Your task to perform on an android device: move an email to a new category in the gmail app Image 0: 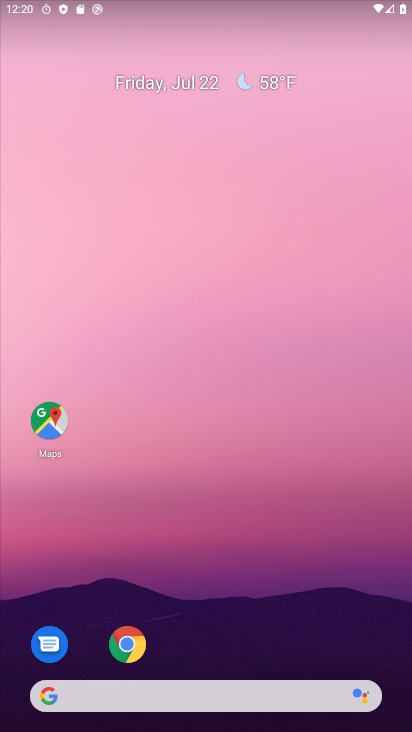
Step 0: drag from (194, 476) to (198, 128)
Your task to perform on an android device: move an email to a new category in the gmail app Image 1: 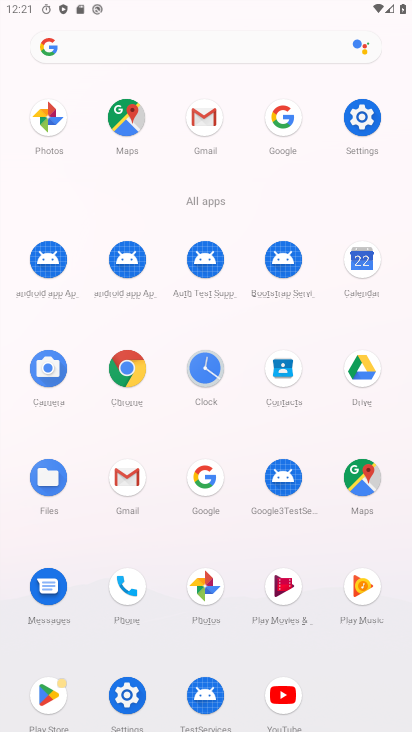
Step 1: click (136, 470)
Your task to perform on an android device: move an email to a new category in the gmail app Image 2: 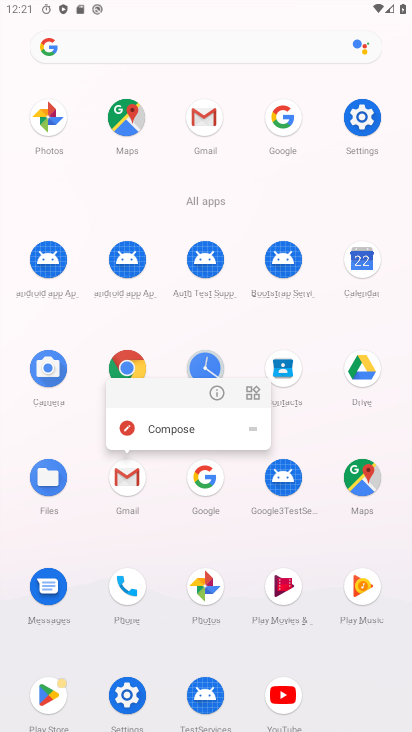
Step 2: click (218, 388)
Your task to perform on an android device: move an email to a new category in the gmail app Image 3: 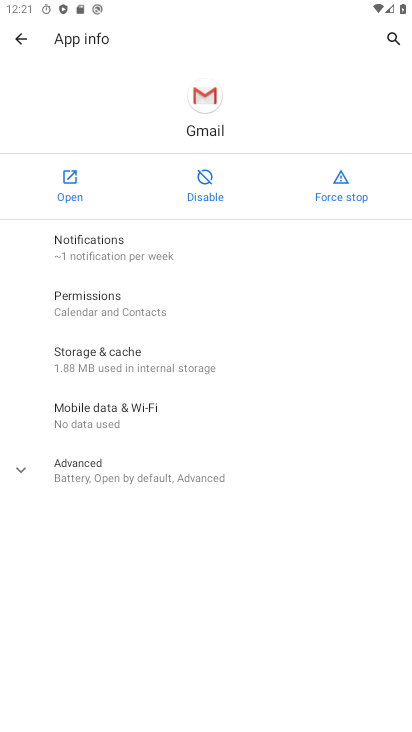
Step 3: click (66, 182)
Your task to perform on an android device: move an email to a new category in the gmail app Image 4: 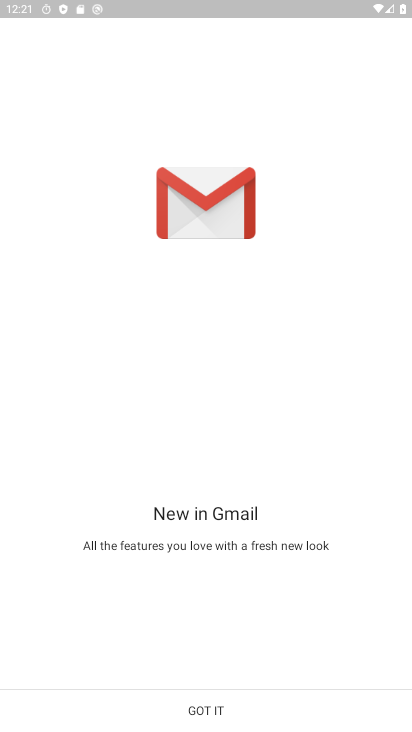
Step 4: click (205, 701)
Your task to perform on an android device: move an email to a new category in the gmail app Image 5: 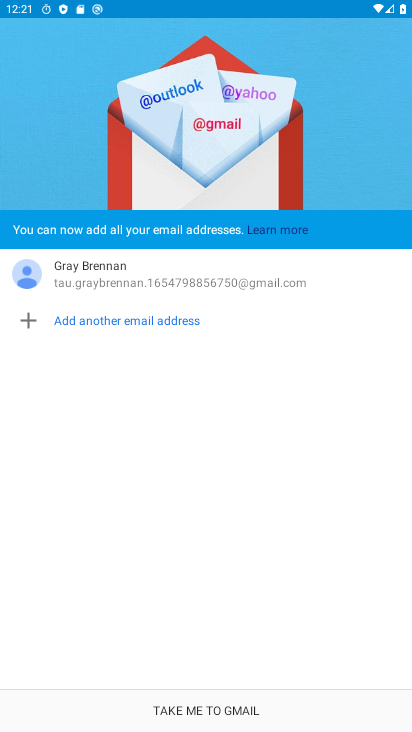
Step 5: click (187, 705)
Your task to perform on an android device: move an email to a new category in the gmail app Image 6: 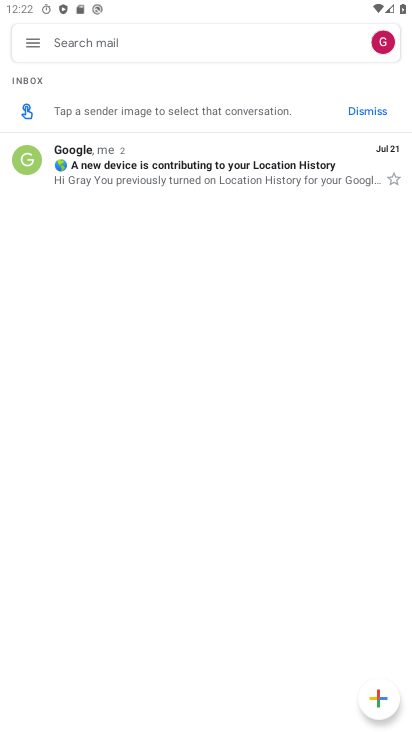
Step 6: click (251, 154)
Your task to perform on an android device: move an email to a new category in the gmail app Image 7: 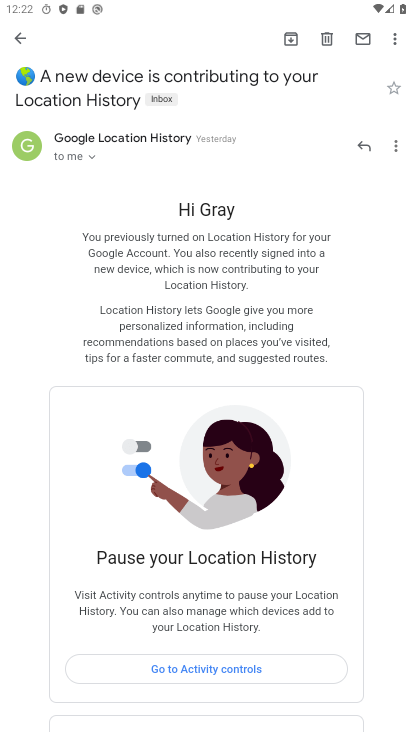
Step 7: drag from (191, 628) to (272, 235)
Your task to perform on an android device: move an email to a new category in the gmail app Image 8: 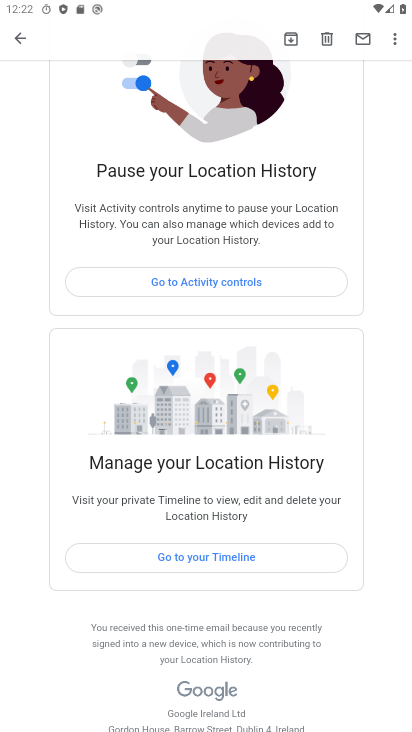
Step 8: drag from (238, 635) to (339, 723)
Your task to perform on an android device: move an email to a new category in the gmail app Image 9: 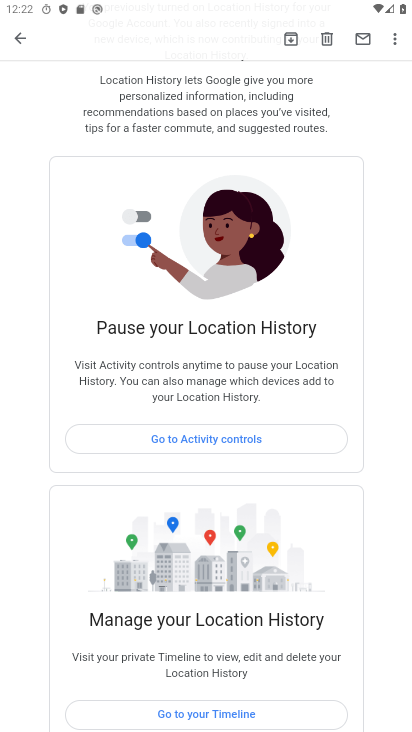
Step 9: click (388, 34)
Your task to perform on an android device: move an email to a new category in the gmail app Image 10: 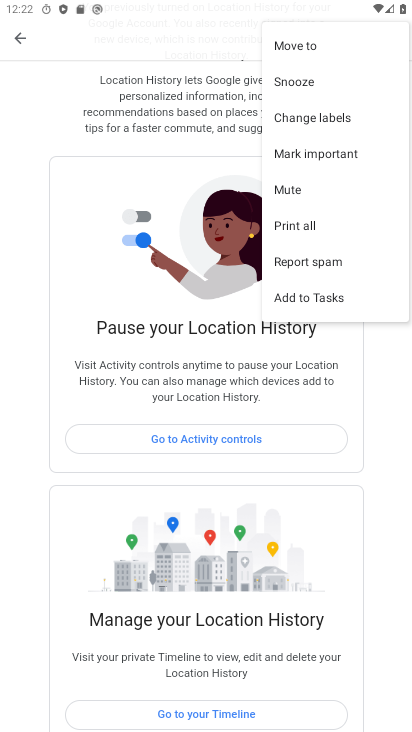
Step 10: click (192, 90)
Your task to perform on an android device: move an email to a new category in the gmail app Image 11: 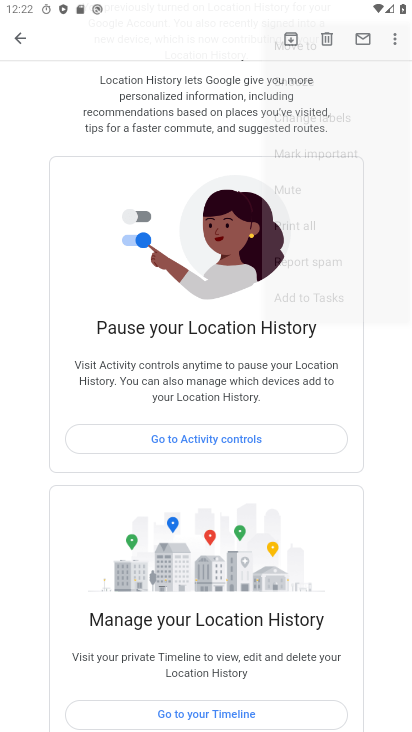
Step 11: drag from (180, 85) to (302, 731)
Your task to perform on an android device: move an email to a new category in the gmail app Image 12: 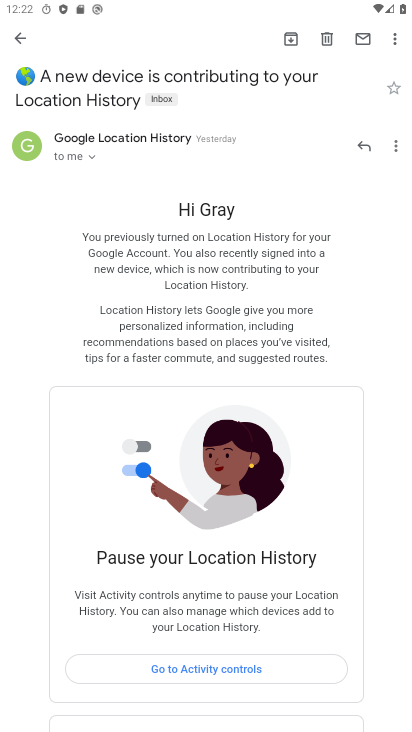
Step 12: click (386, 88)
Your task to perform on an android device: move an email to a new category in the gmail app Image 13: 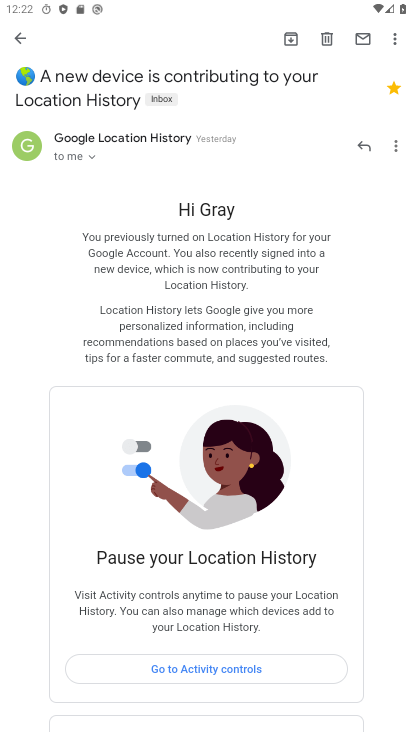
Step 13: task complete